Your task to perform on an android device: Open notification settings Image 0: 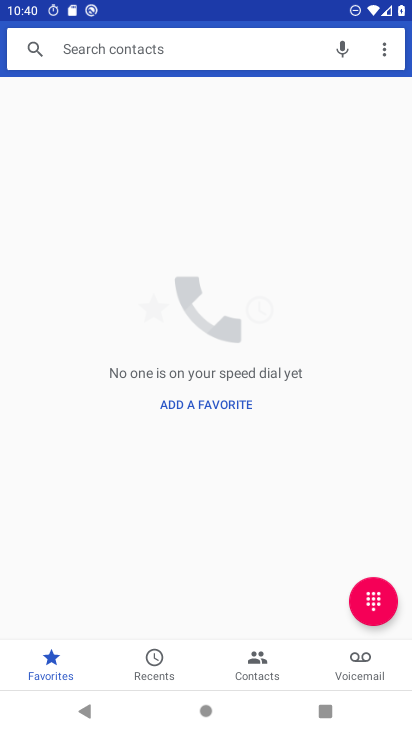
Step 0: press home button
Your task to perform on an android device: Open notification settings Image 1: 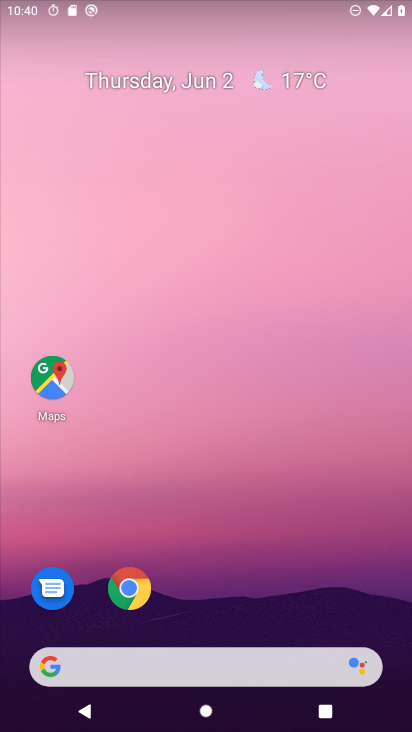
Step 1: drag from (185, 650) to (269, 118)
Your task to perform on an android device: Open notification settings Image 2: 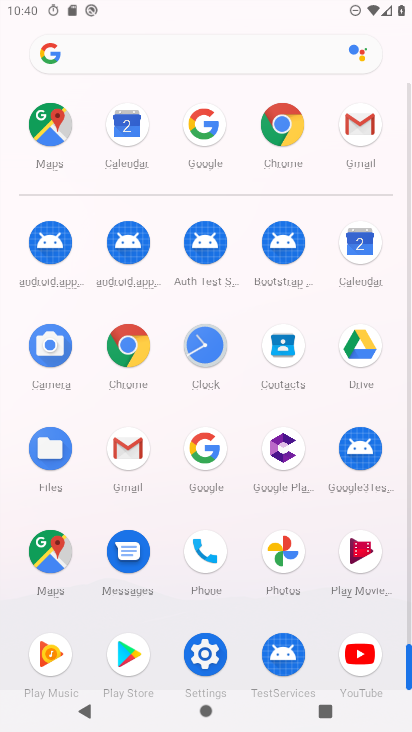
Step 2: drag from (190, 454) to (210, 282)
Your task to perform on an android device: Open notification settings Image 3: 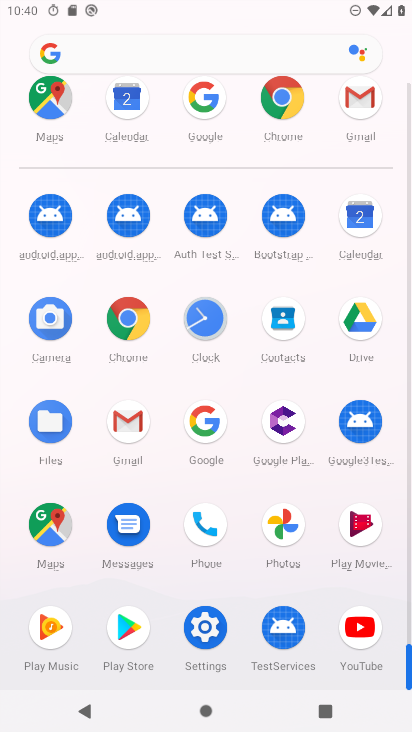
Step 3: click (214, 633)
Your task to perform on an android device: Open notification settings Image 4: 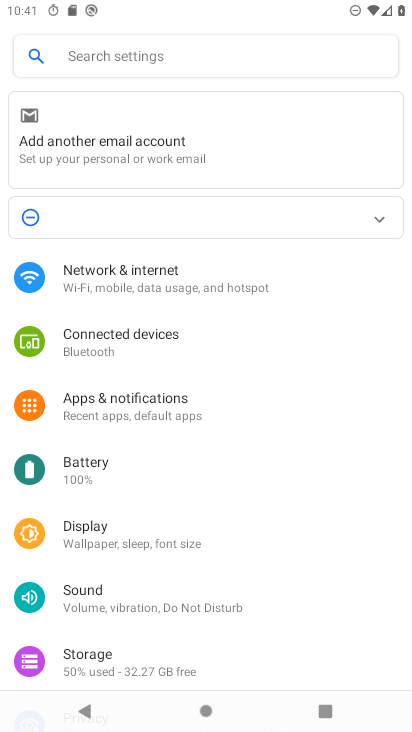
Step 4: click (184, 401)
Your task to perform on an android device: Open notification settings Image 5: 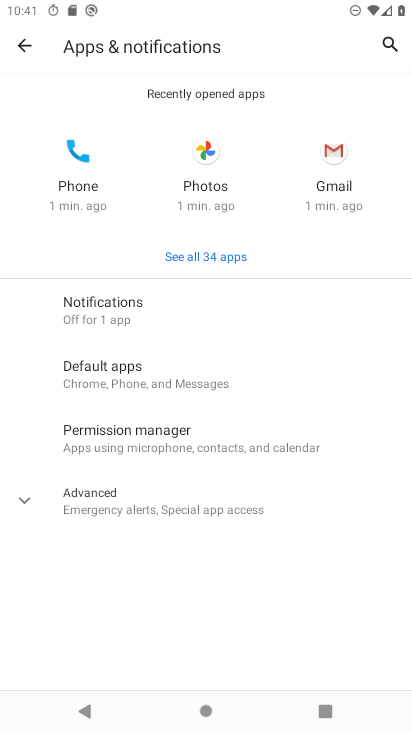
Step 5: click (178, 310)
Your task to perform on an android device: Open notification settings Image 6: 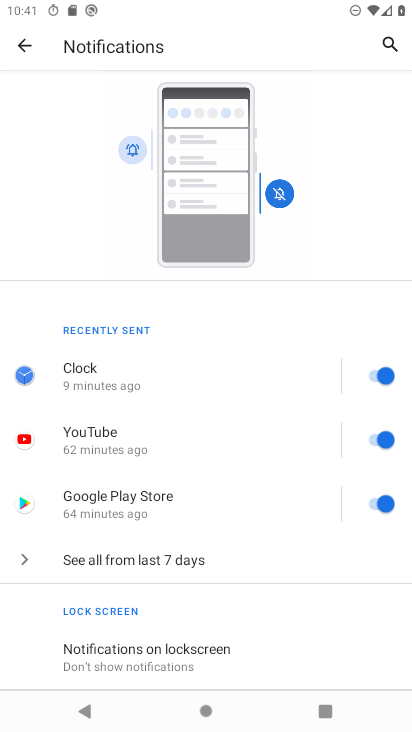
Step 6: task complete